Your task to perform on an android device: Search for custom made wallets on etsy.com Image 0: 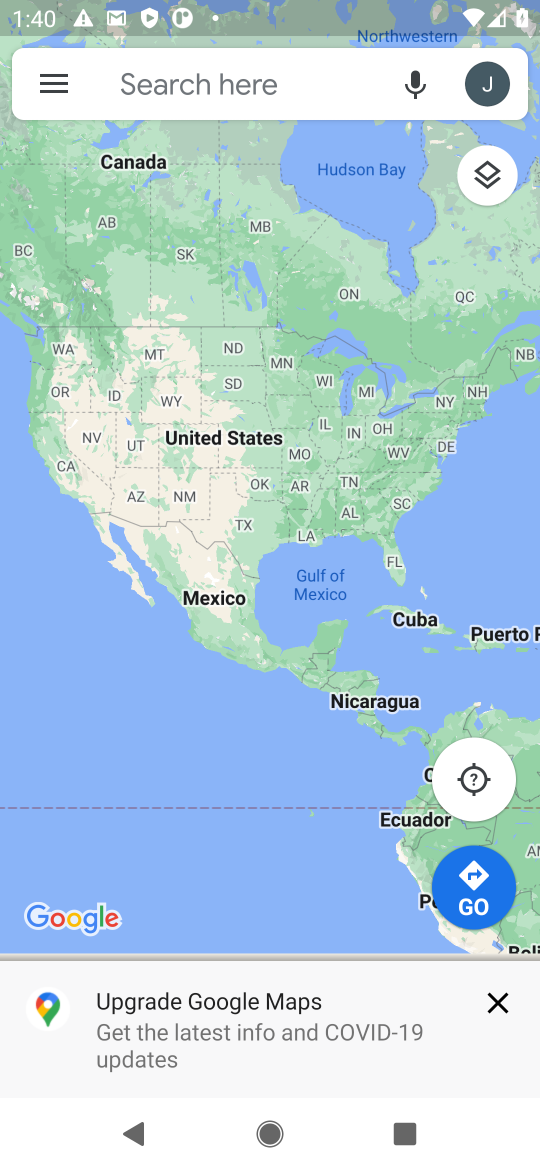
Step 0: press home button
Your task to perform on an android device: Search for custom made wallets on etsy.com Image 1: 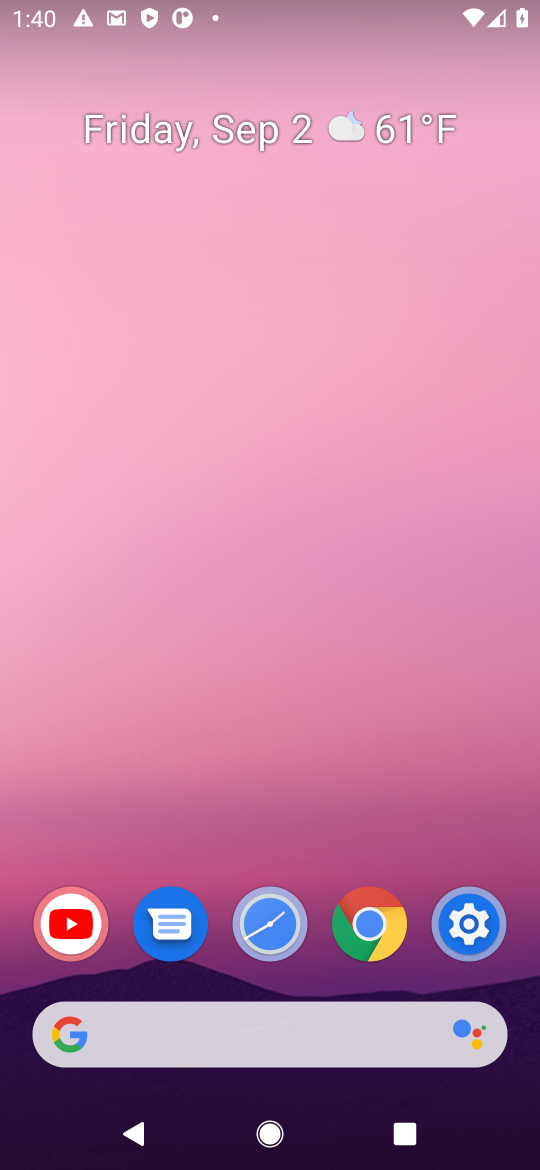
Step 1: click (403, 1025)
Your task to perform on an android device: Search for custom made wallets on etsy.com Image 2: 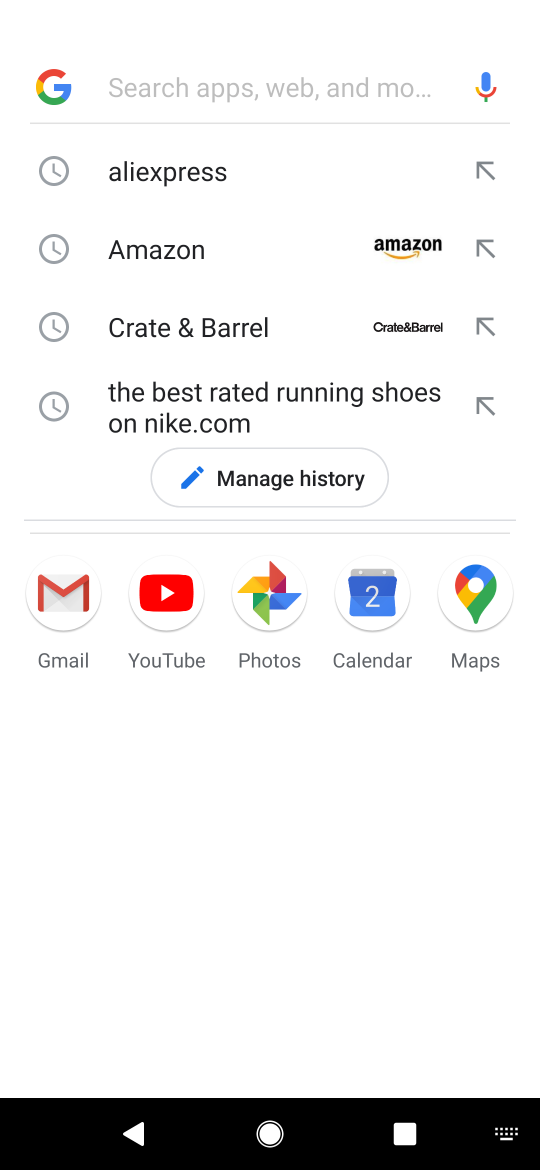
Step 2: press enter
Your task to perform on an android device: Search for custom made wallets on etsy.com Image 3: 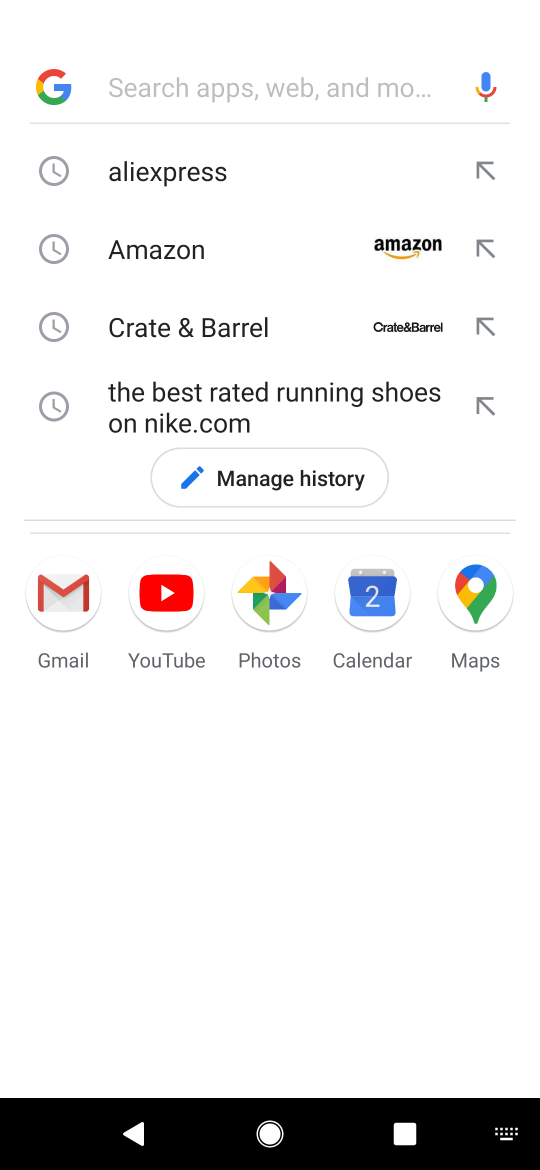
Step 3: type "etsy.com"
Your task to perform on an android device: Search for custom made wallets on etsy.com Image 4: 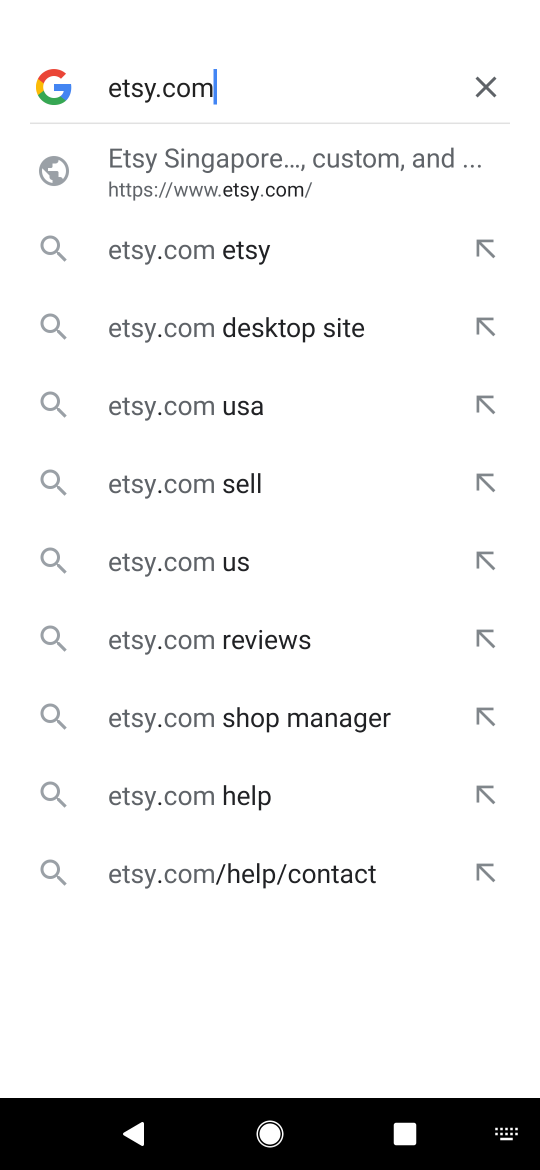
Step 4: click (276, 168)
Your task to perform on an android device: Search for custom made wallets on etsy.com Image 5: 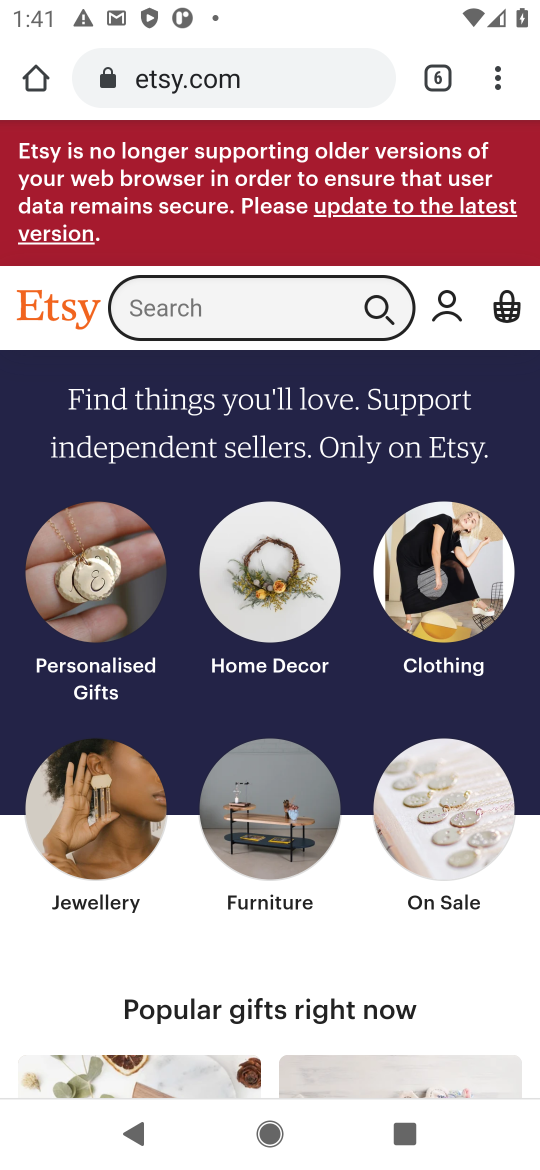
Step 5: click (262, 303)
Your task to perform on an android device: Search for custom made wallets on etsy.com Image 6: 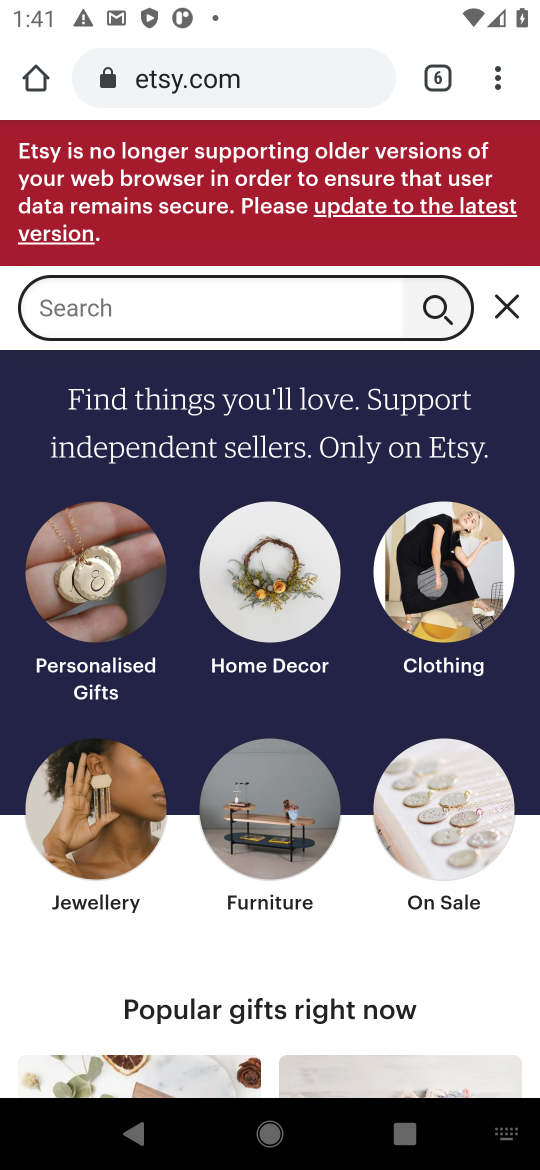
Step 6: type "custom made wallets"
Your task to perform on an android device: Search for custom made wallets on etsy.com Image 7: 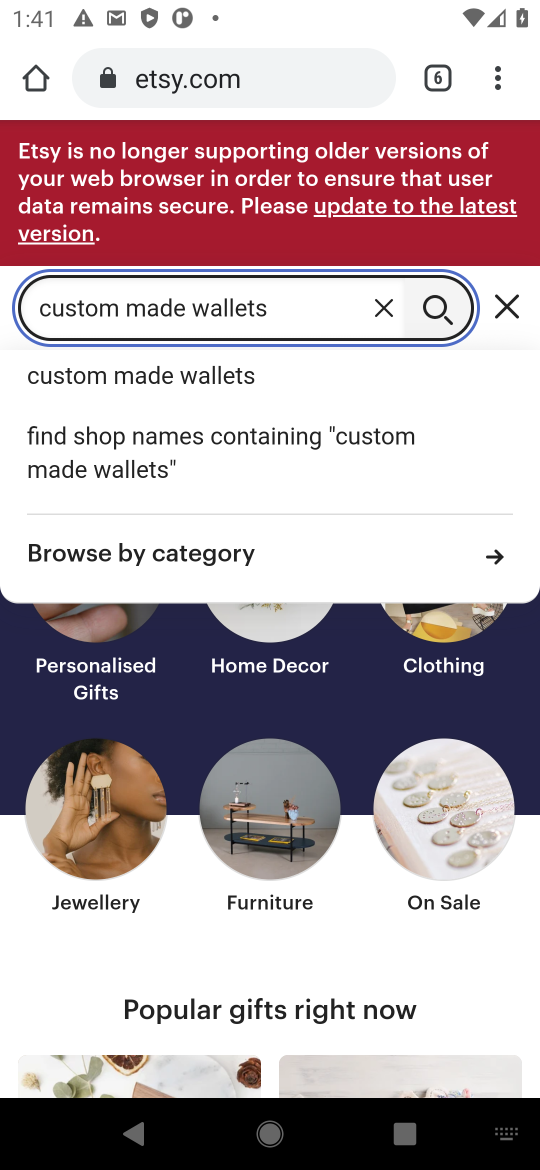
Step 7: click (275, 370)
Your task to perform on an android device: Search for custom made wallets on etsy.com Image 8: 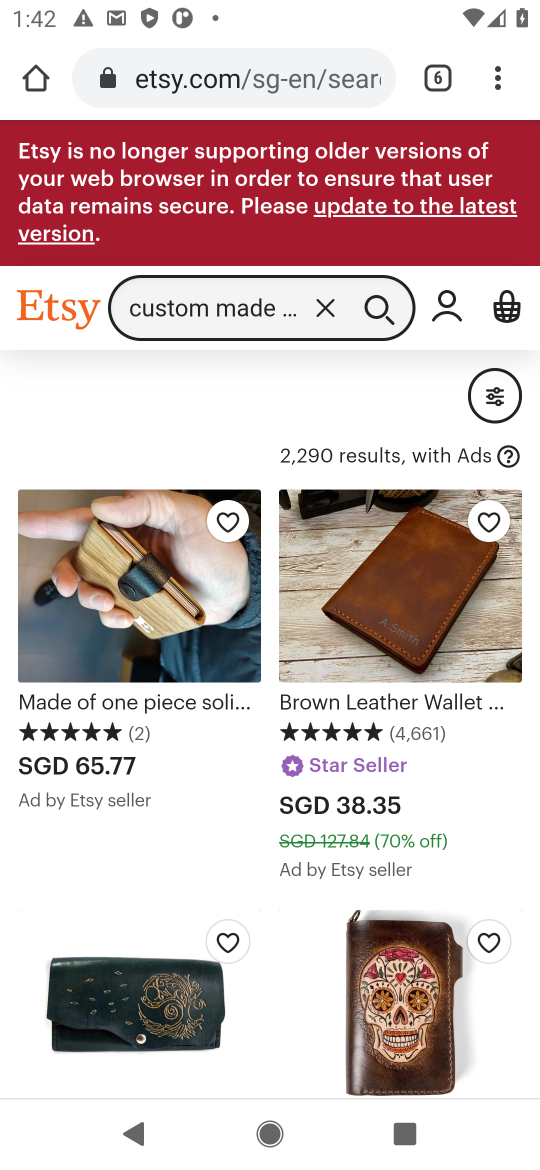
Step 8: task complete